Your task to perform on an android device: turn on javascript in the chrome app Image 0: 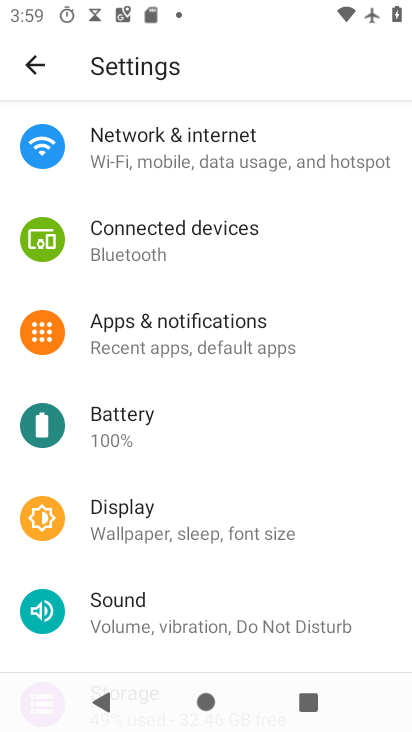
Step 0: press home button
Your task to perform on an android device: turn on javascript in the chrome app Image 1: 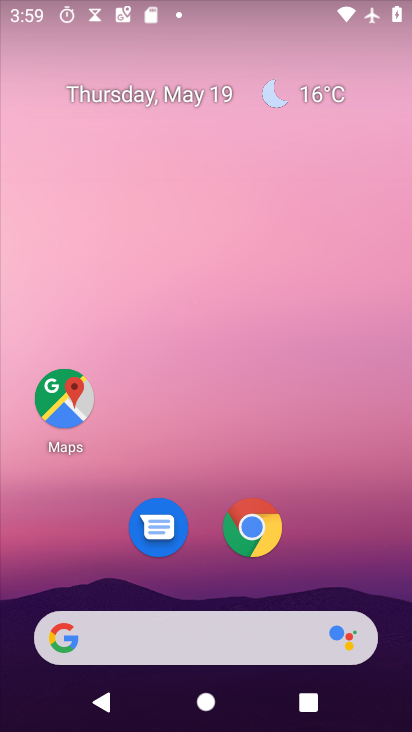
Step 1: drag from (349, 519) to (280, 78)
Your task to perform on an android device: turn on javascript in the chrome app Image 2: 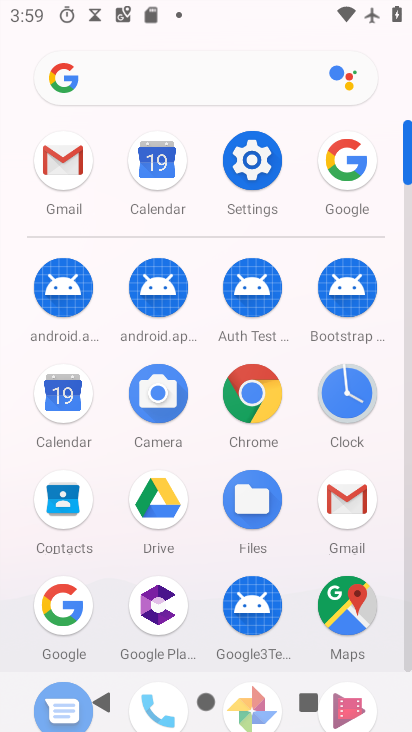
Step 2: click (259, 186)
Your task to perform on an android device: turn on javascript in the chrome app Image 3: 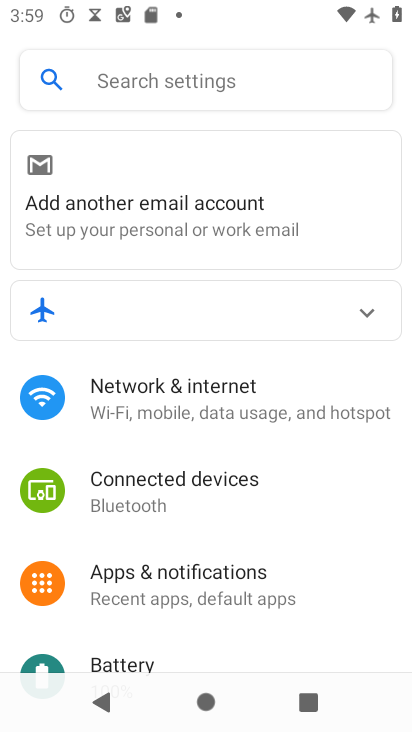
Step 3: drag from (322, 584) to (251, 109)
Your task to perform on an android device: turn on javascript in the chrome app Image 4: 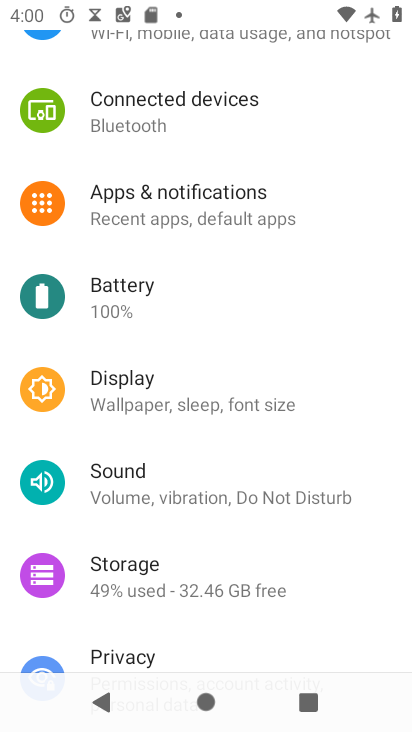
Step 4: press home button
Your task to perform on an android device: turn on javascript in the chrome app Image 5: 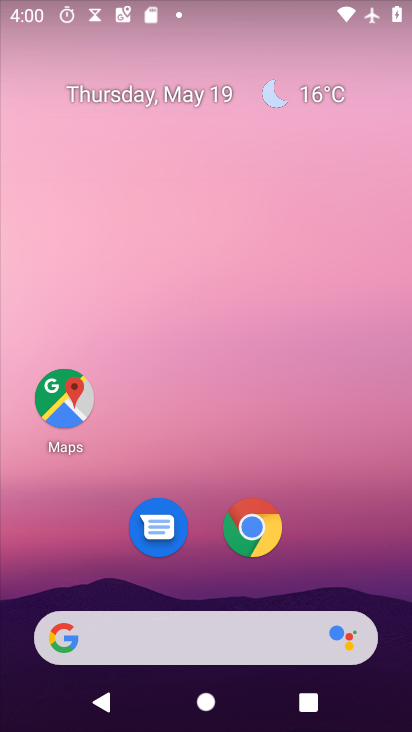
Step 5: click (262, 525)
Your task to perform on an android device: turn on javascript in the chrome app Image 6: 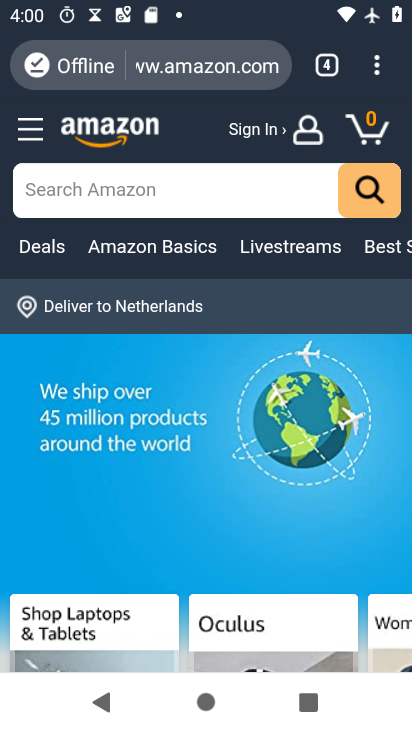
Step 6: click (371, 63)
Your task to perform on an android device: turn on javascript in the chrome app Image 7: 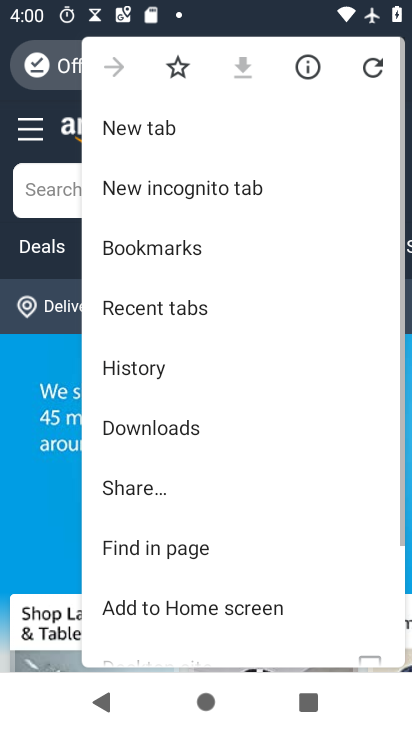
Step 7: drag from (257, 551) to (254, 165)
Your task to perform on an android device: turn on javascript in the chrome app Image 8: 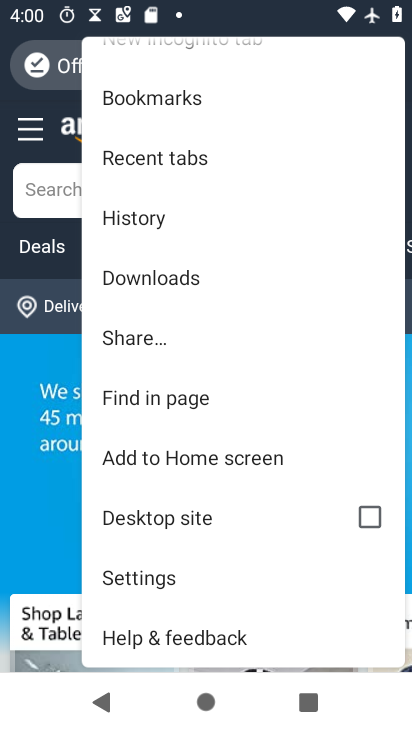
Step 8: click (198, 580)
Your task to perform on an android device: turn on javascript in the chrome app Image 9: 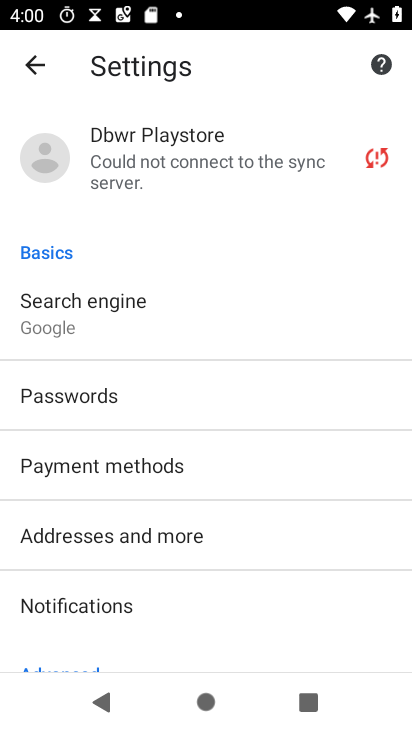
Step 9: drag from (255, 579) to (227, 202)
Your task to perform on an android device: turn on javascript in the chrome app Image 10: 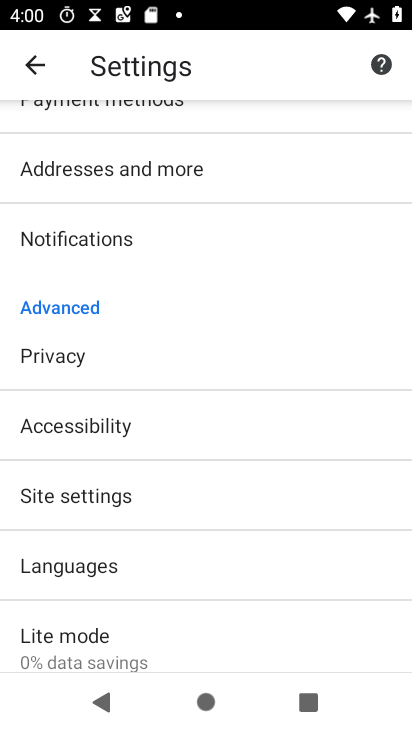
Step 10: click (146, 495)
Your task to perform on an android device: turn on javascript in the chrome app Image 11: 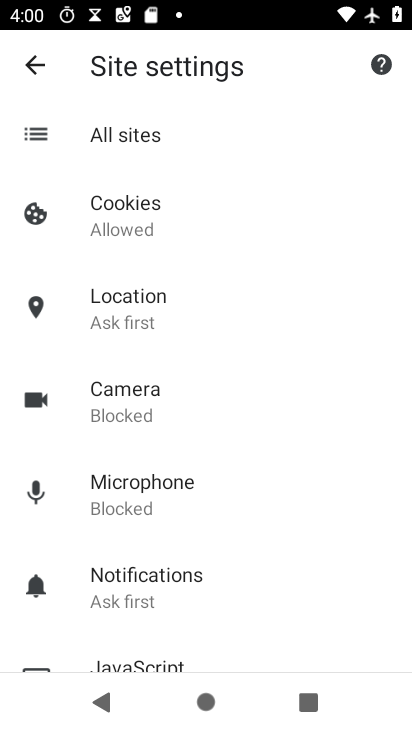
Step 11: drag from (224, 536) to (238, 245)
Your task to perform on an android device: turn on javascript in the chrome app Image 12: 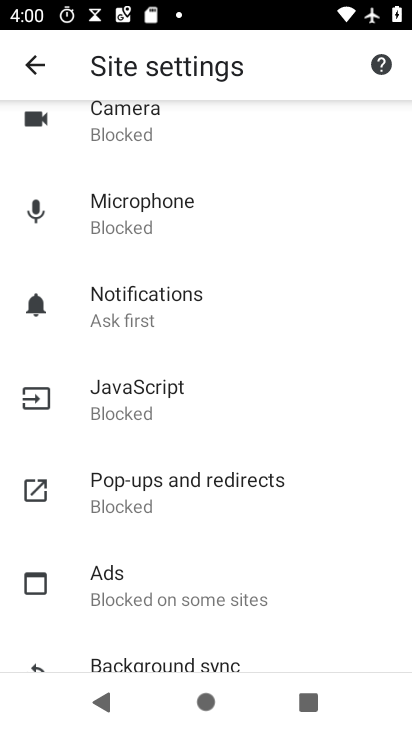
Step 12: click (169, 393)
Your task to perform on an android device: turn on javascript in the chrome app Image 13: 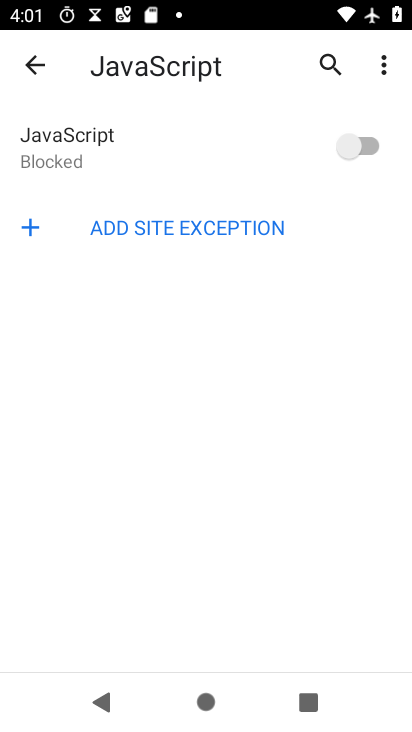
Step 13: click (364, 143)
Your task to perform on an android device: turn on javascript in the chrome app Image 14: 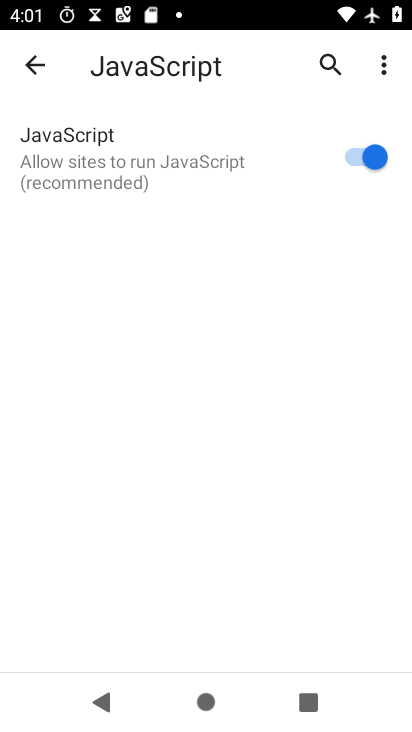
Step 14: task complete